Your task to perform on an android device: change the clock display to digital Image 0: 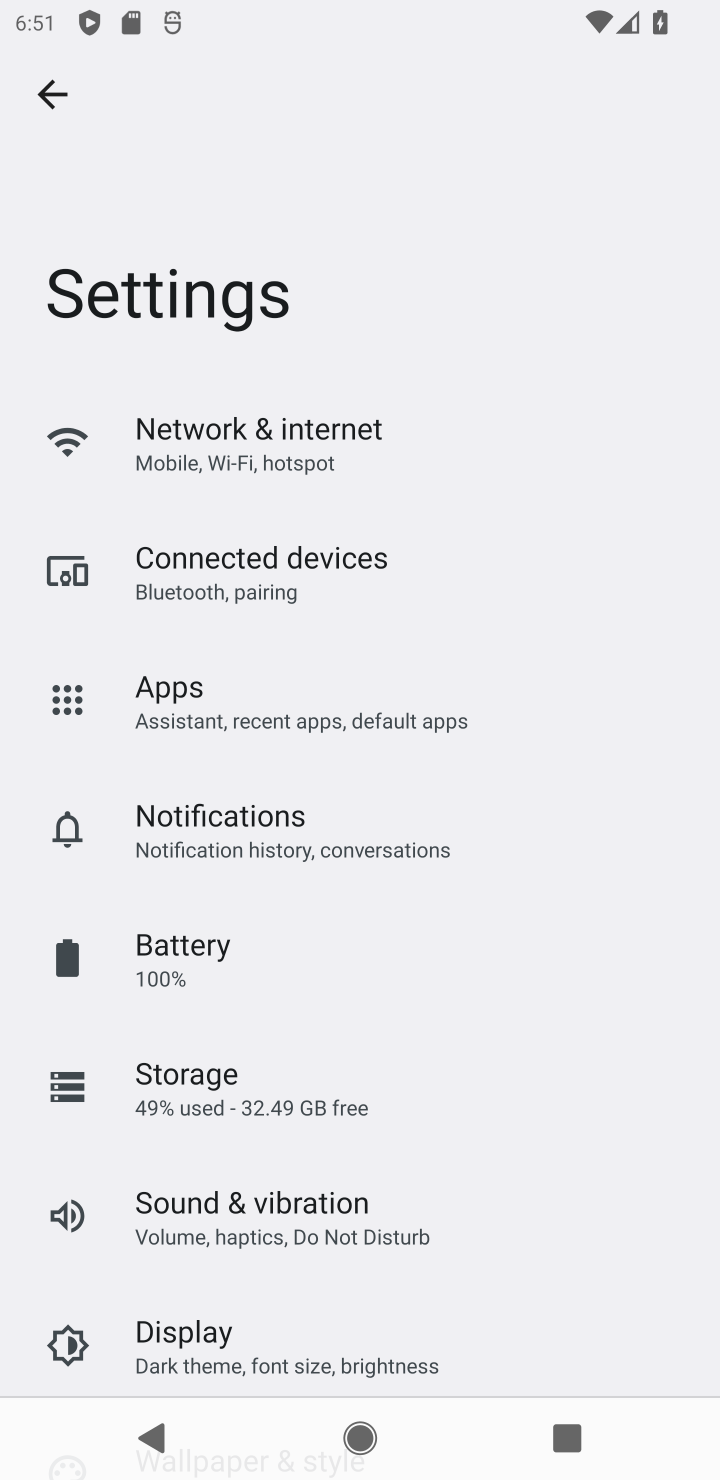
Step 0: press home button
Your task to perform on an android device: change the clock display to digital Image 1: 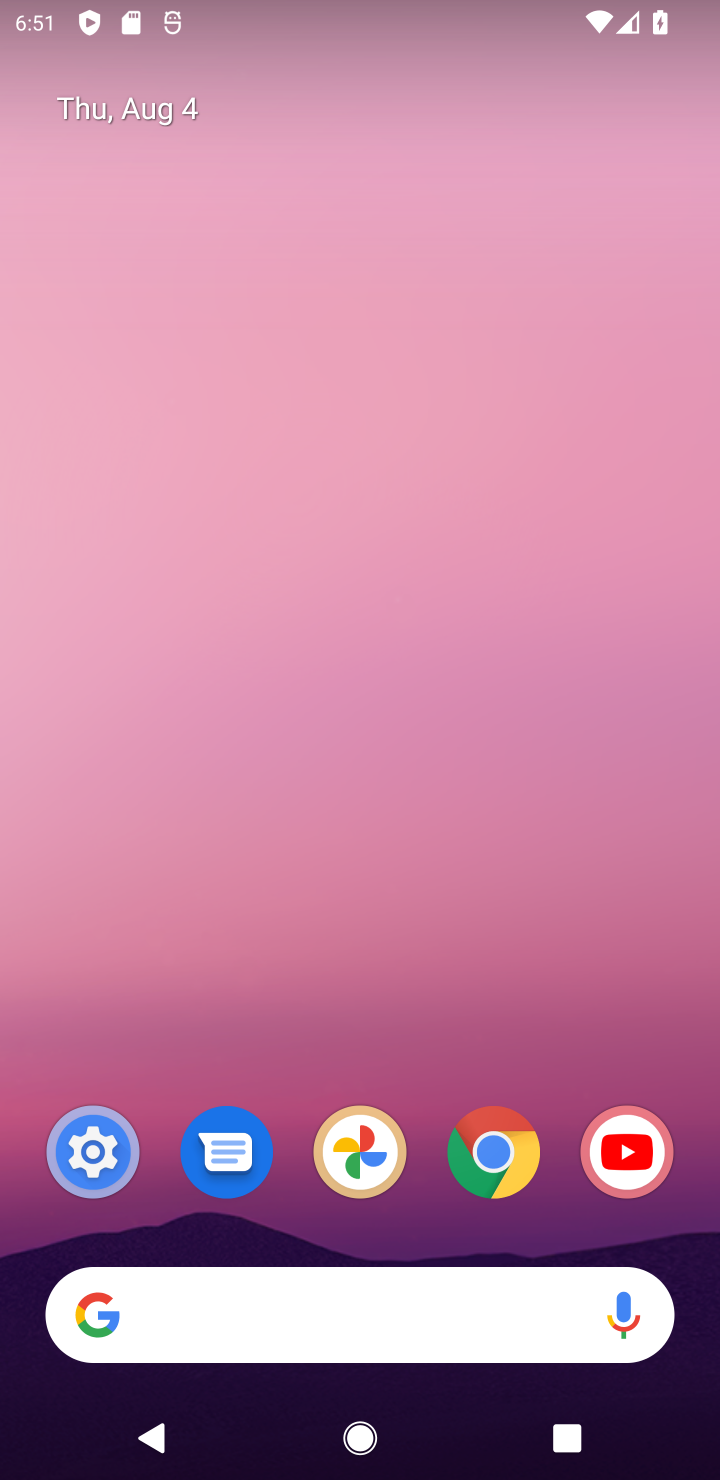
Step 1: drag from (5, 1387) to (525, 164)
Your task to perform on an android device: change the clock display to digital Image 2: 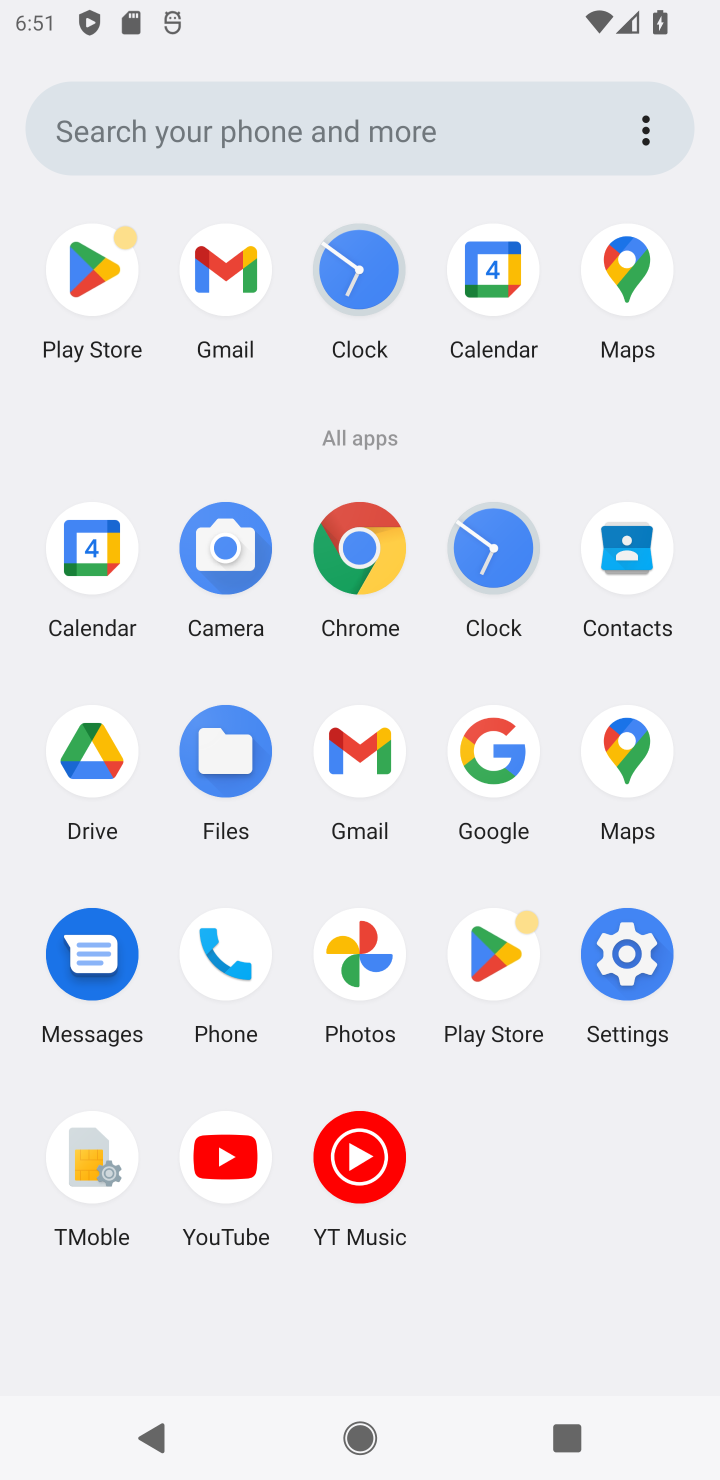
Step 2: click (358, 278)
Your task to perform on an android device: change the clock display to digital Image 3: 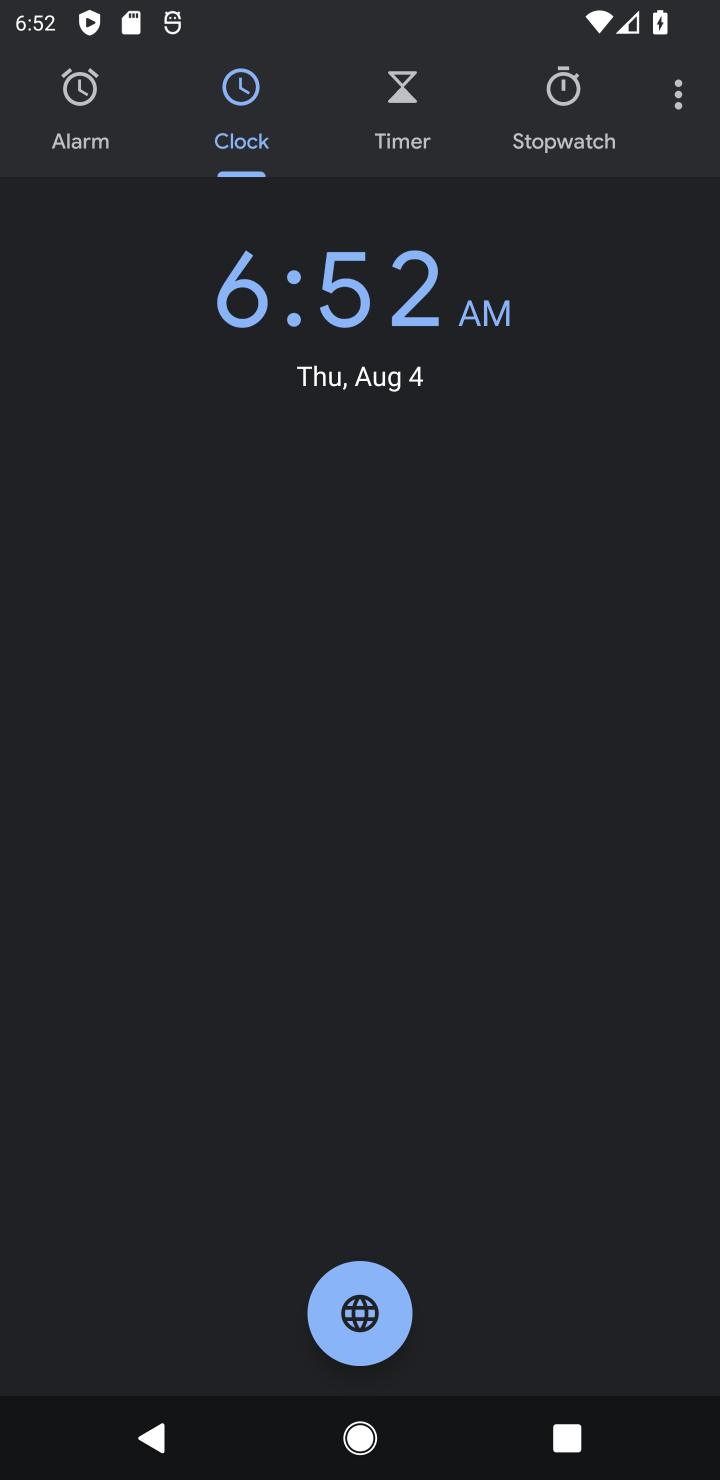
Step 3: click (683, 94)
Your task to perform on an android device: change the clock display to digital Image 4: 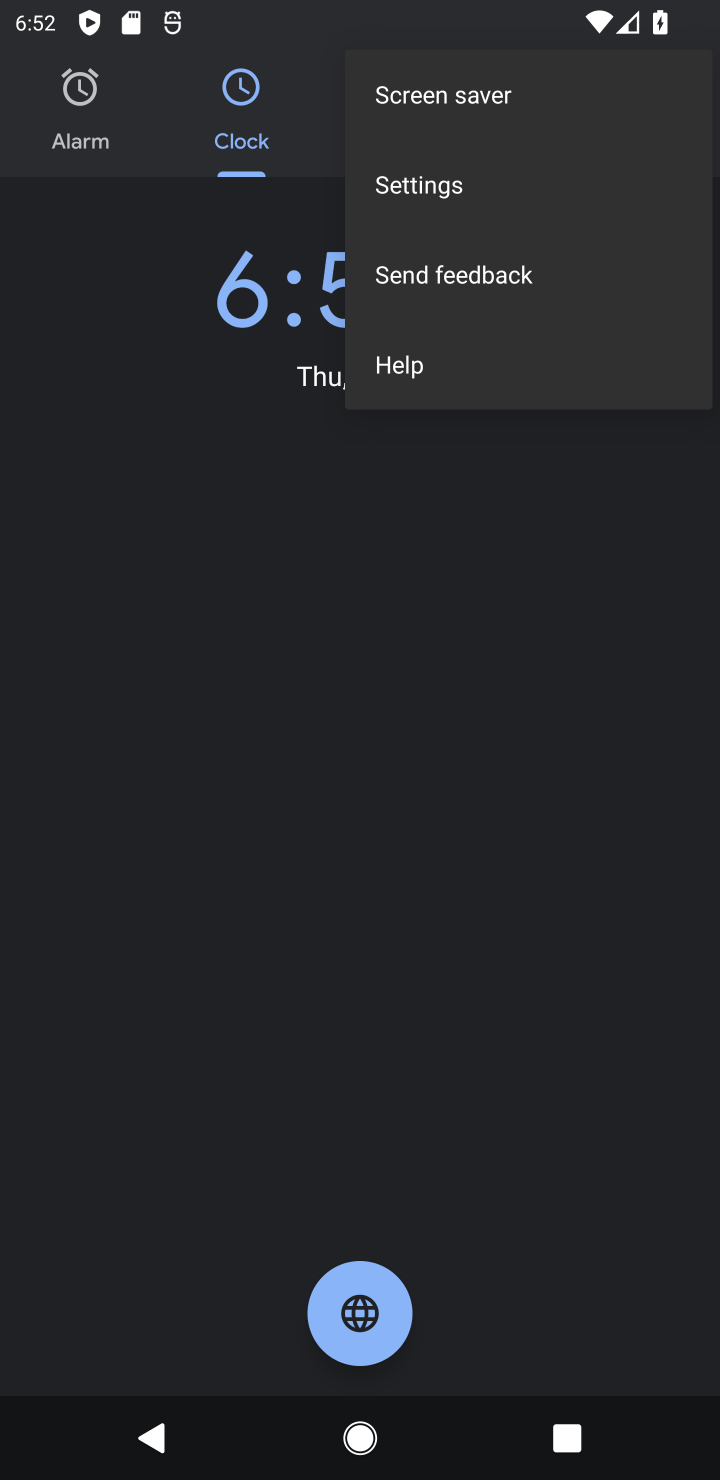
Step 4: click (399, 192)
Your task to perform on an android device: change the clock display to digital Image 5: 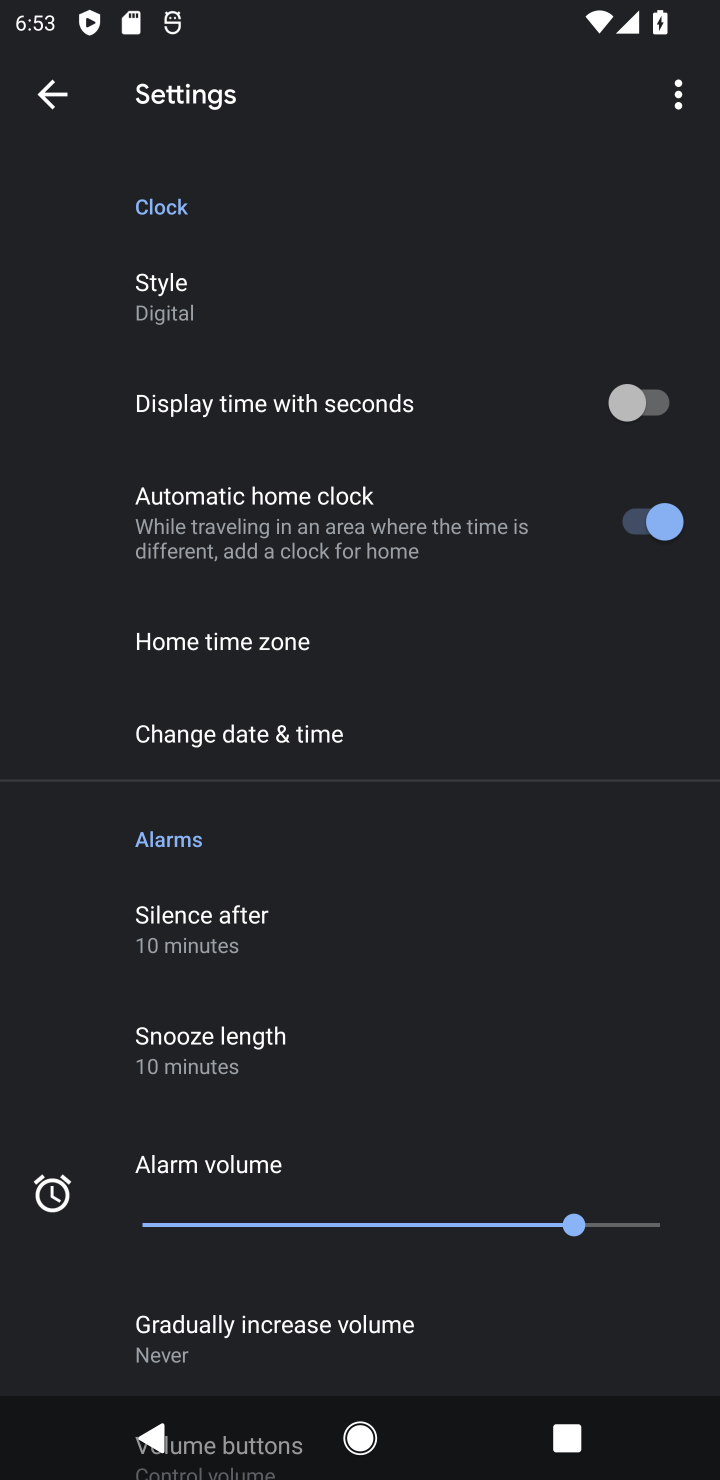
Step 5: task complete